Your task to perform on an android device: open app "Messages" (install if not already installed) Image 0: 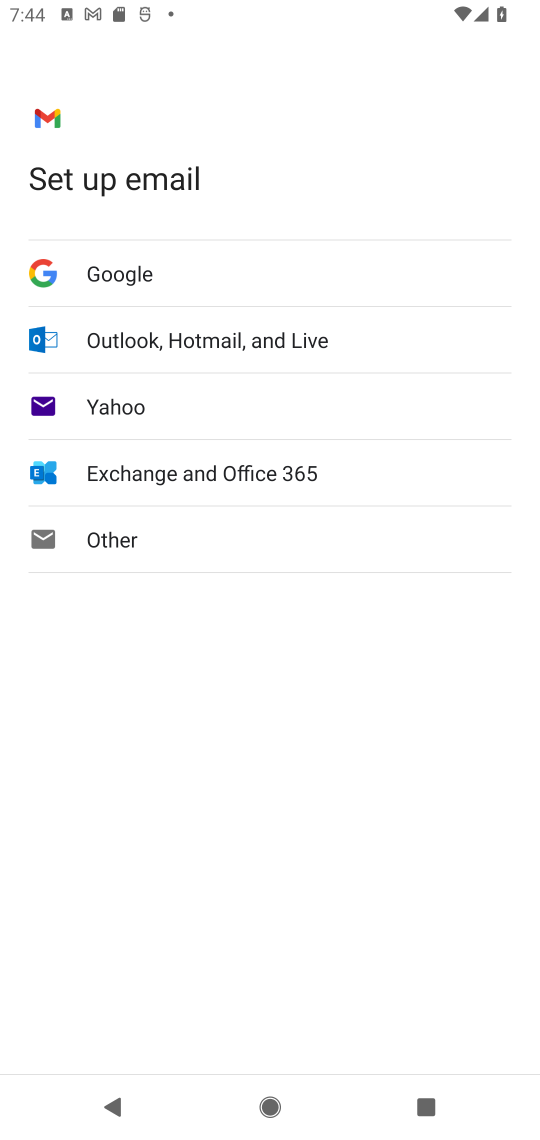
Step 0: press back button
Your task to perform on an android device: open app "Messages" (install if not already installed) Image 1: 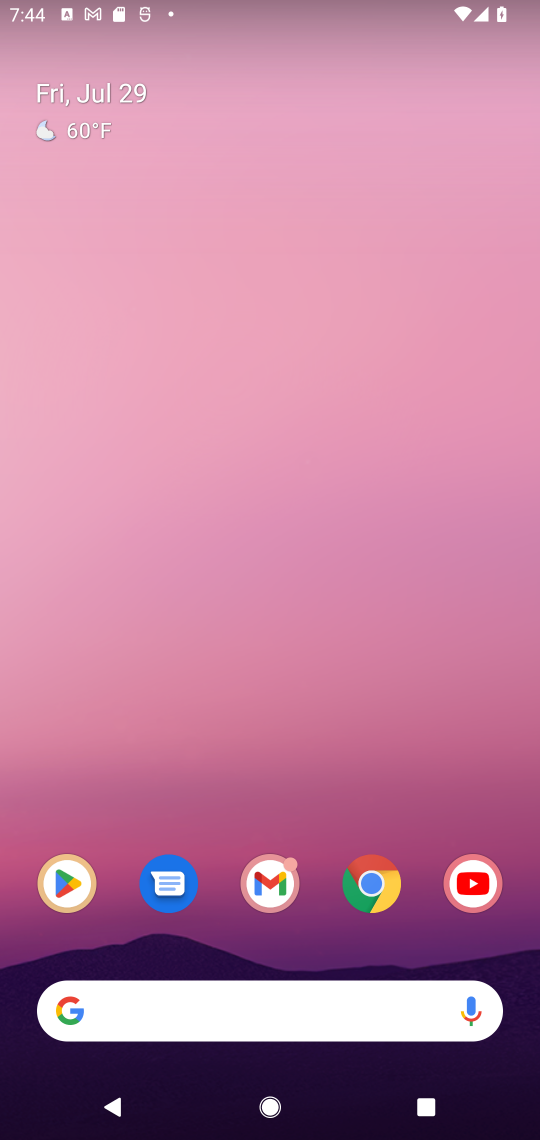
Step 1: click (75, 872)
Your task to perform on an android device: open app "Messages" (install if not already installed) Image 2: 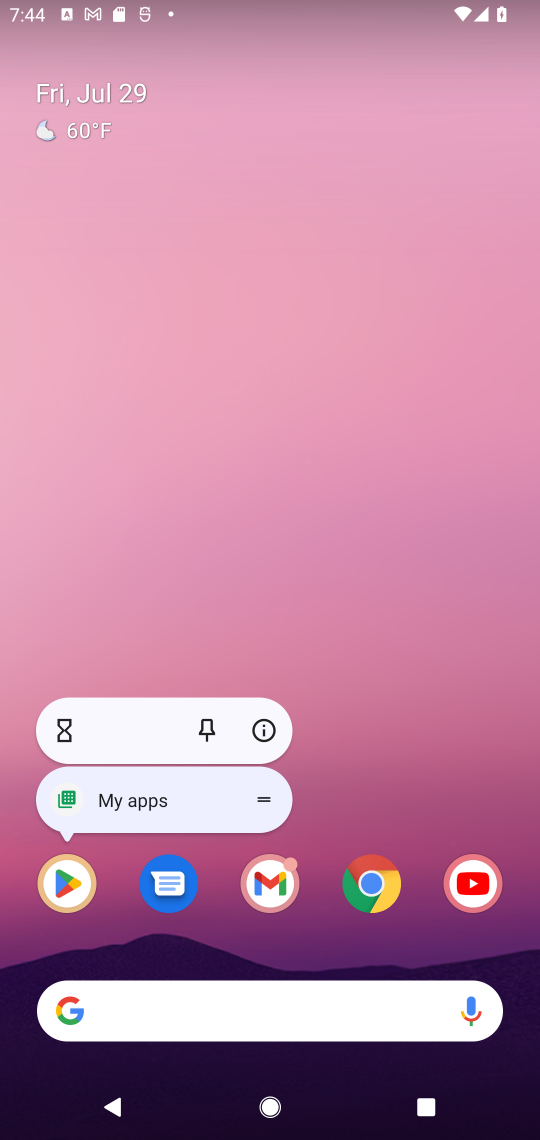
Step 2: click (55, 879)
Your task to perform on an android device: open app "Messages" (install if not already installed) Image 3: 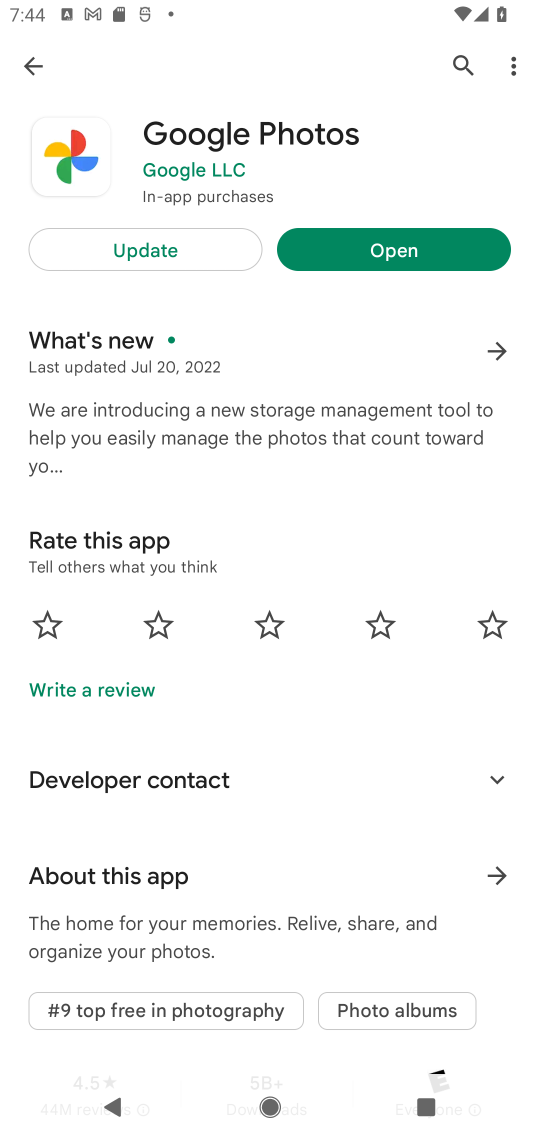
Step 3: click (456, 61)
Your task to perform on an android device: open app "Messages" (install if not already installed) Image 4: 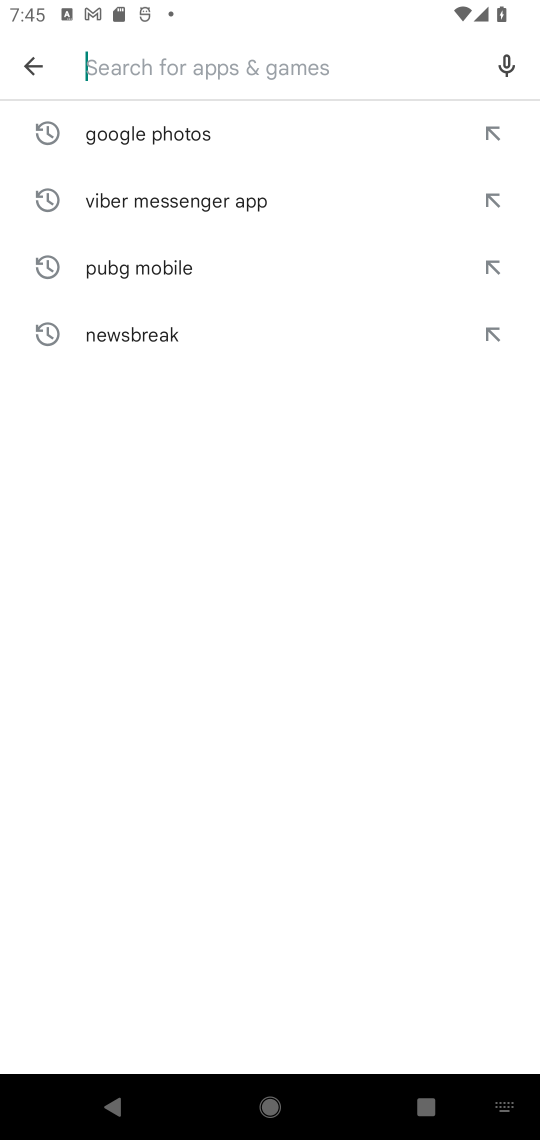
Step 4: click (230, 66)
Your task to perform on an android device: open app "Messages" (install if not already installed) Image 5: 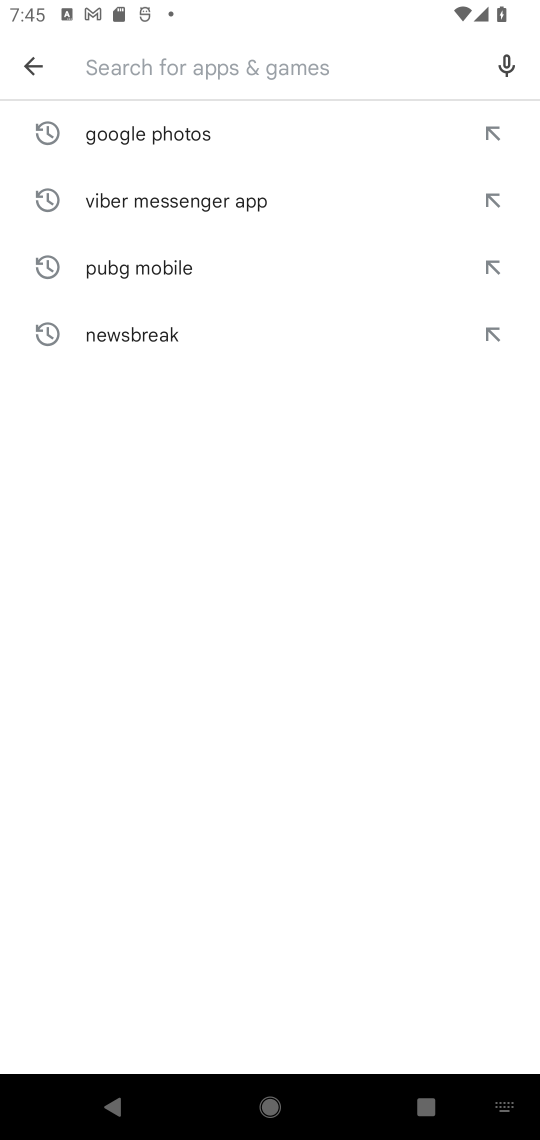
Step 5: type "messages"
Your task to perform on an android device: open app "Messages" (install if not already installed) Image 6: 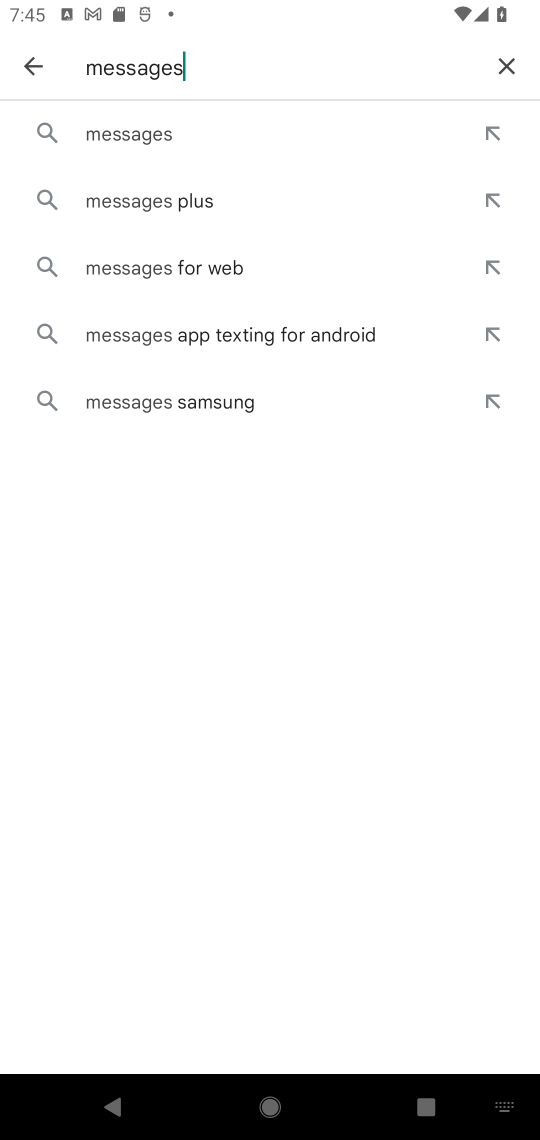
Step 6: click (138, 120)
Your task to perform on an android device: open app "Messages" (install if not already installed) Image 7: 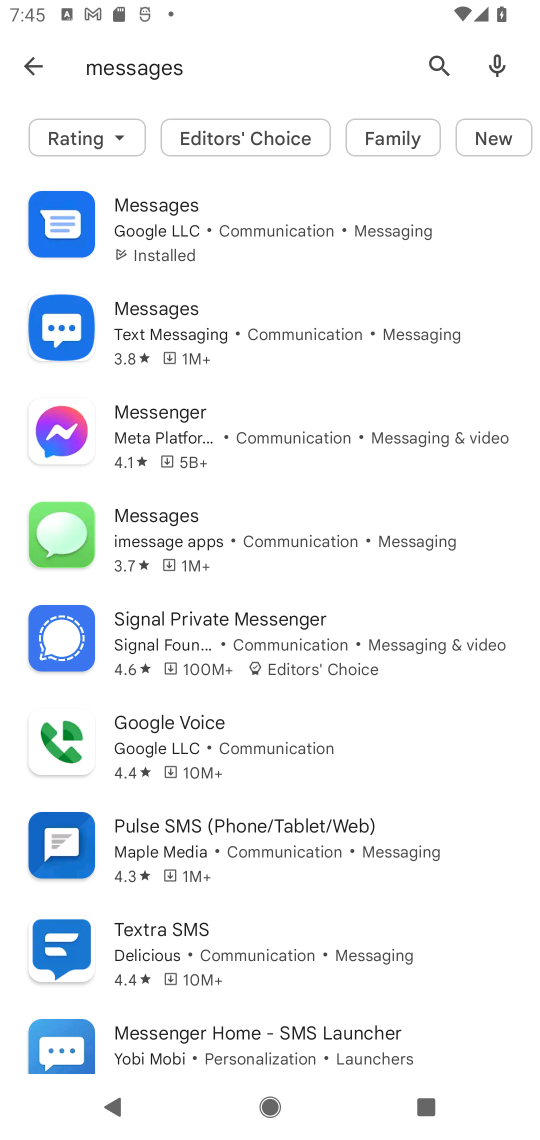
Step 7: click (210, 232)
Your task to perform on an android device: open app "Messages" (install if not already installed) Image 8: 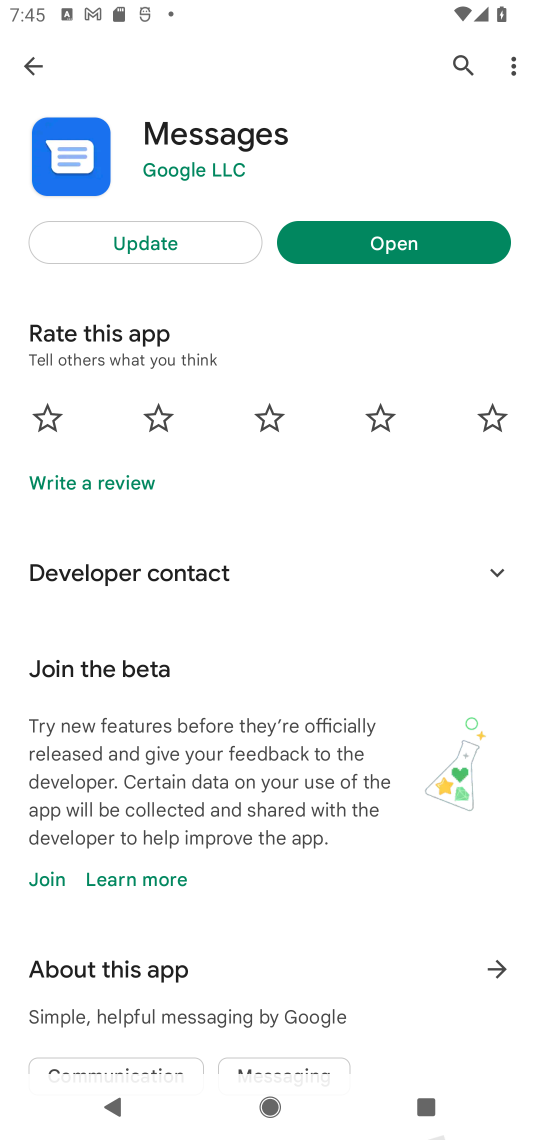
Step 8: click (381, 246)
Your task to perform on an android device: open app "Messages" (install if not already installed) Image 9: 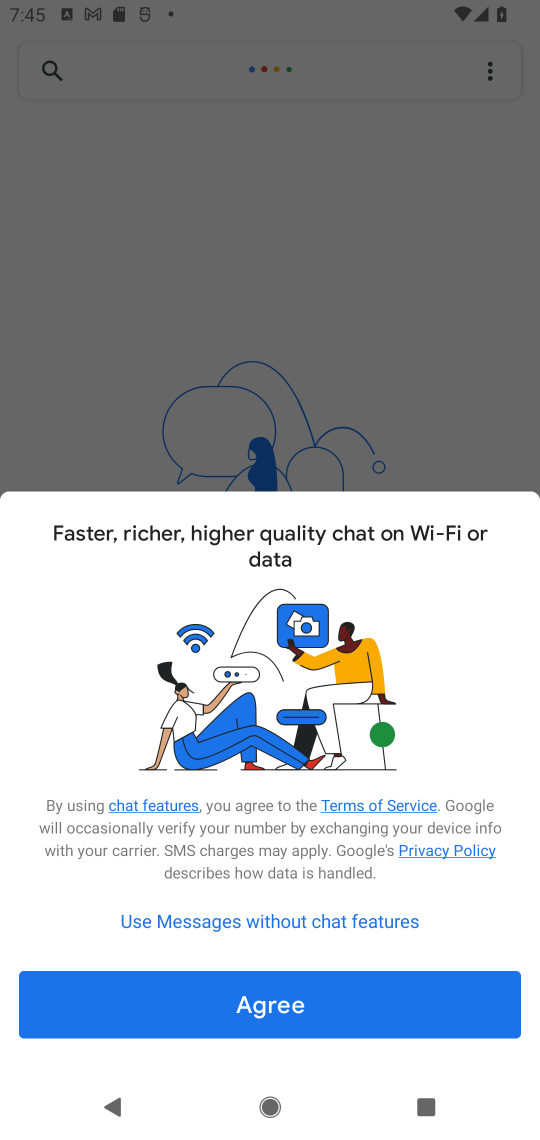
Step 9: task complete